Your task to perform on an android device: make emails show in primary in the gmail app Image 0: 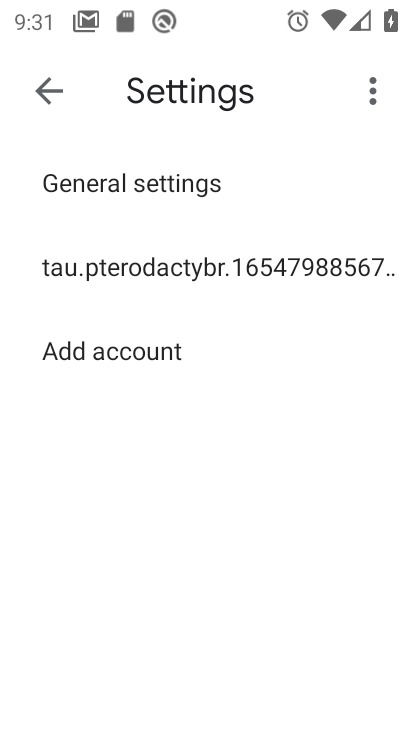
Step 0: press home button
Your task to perform on an android device: make emails show in primary in the gmail app Image 1: 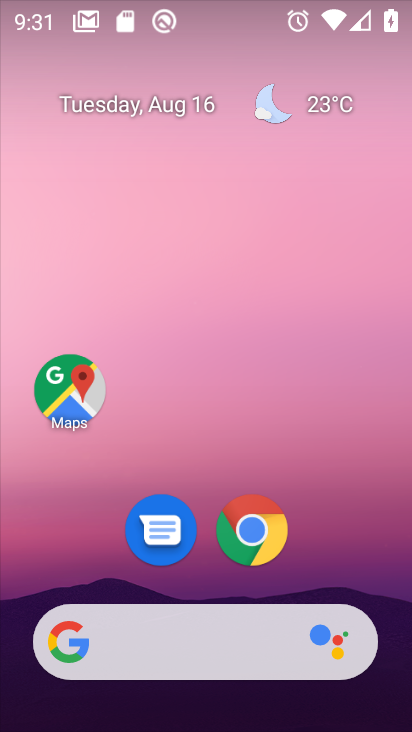
Step 1: drag from (336, 582) to (360, 213)
Your task to perform on an android device: make emails show in primary in the gmail app Image 2: 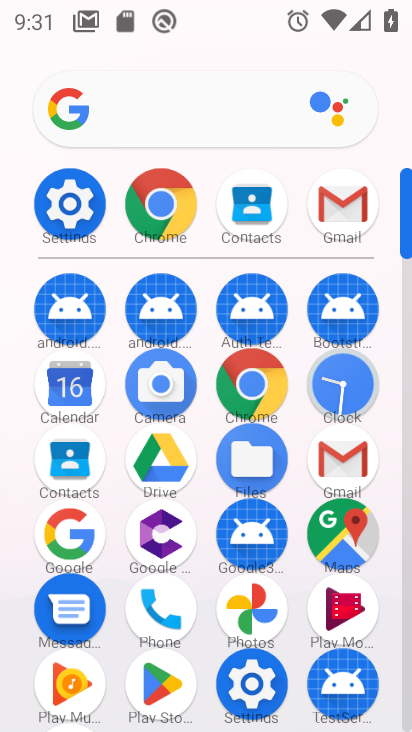
Step 2: click (341, 471)
Your task to perform on an android device: make emails show in primary in the gmail app Image 3: 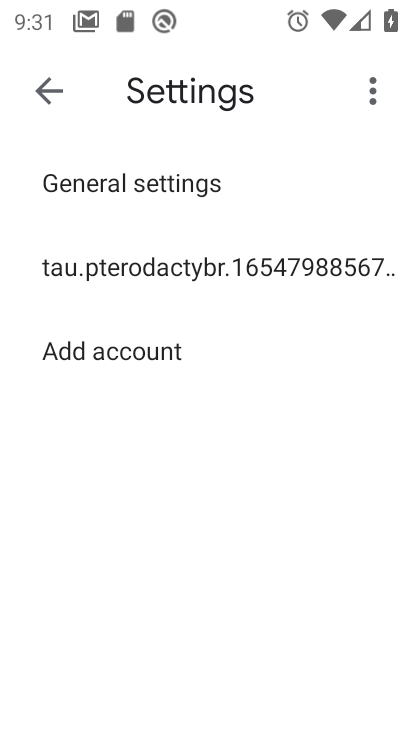
Step 3: click (283, 267)
Your task to perform on an android device: make emails show in primary in the gmail app Image 4: 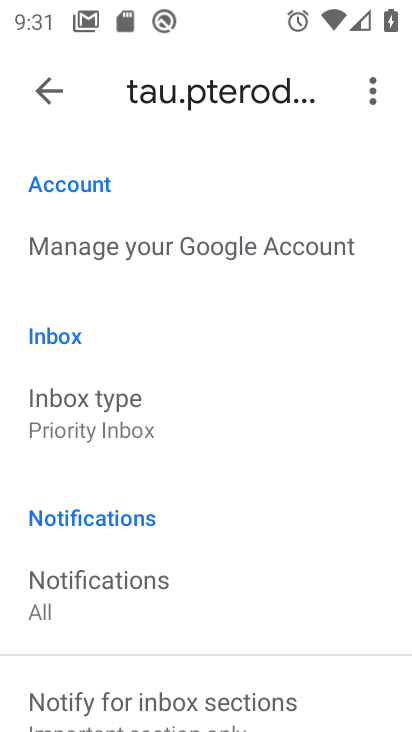
Step 4: drag from (192, 616) to (306, 243)
Your task to perform on an android device: make emails show in primary in the gmail app Image 5: 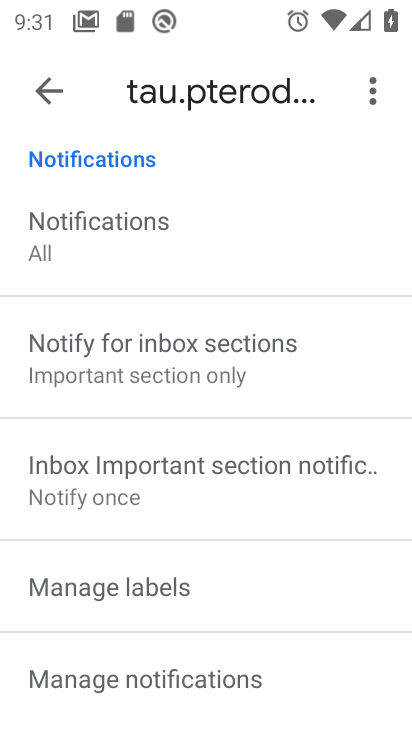
Step 5: drag from (269, 635) to (345, 403)
Your task to perform on an android device: make emails show in primary in the gmail app Image 6: 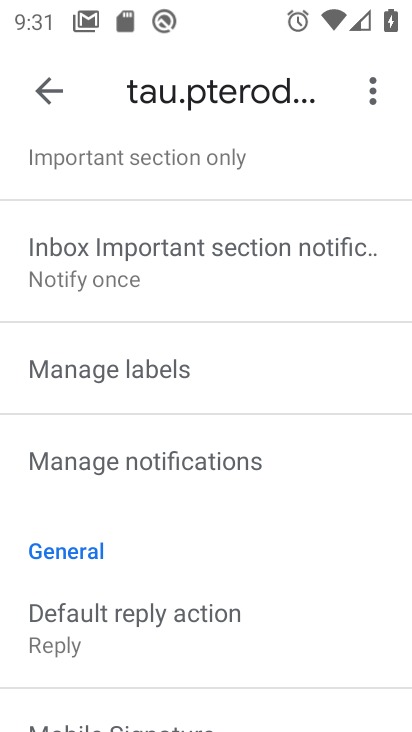
Step 6: drag from (280, 642) to (368, 255)
Your task to perform on an android device: make emails show in primary in the gmail app Image 7: 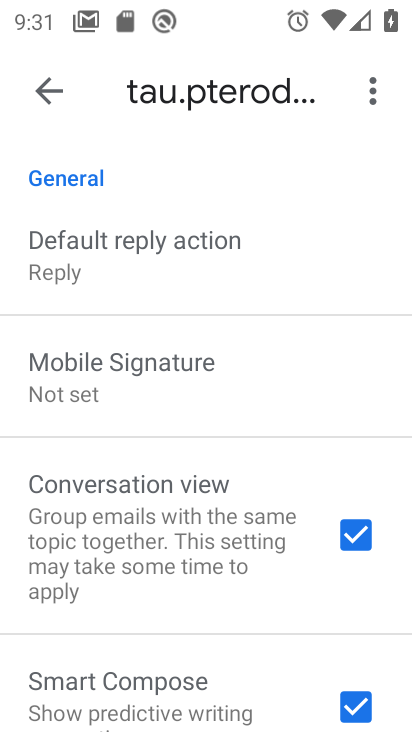
Step 7: drag from (136, 162) to (191, 654)
Your task to perform on an android device: make emails show in primary in the gmail app Image 8: 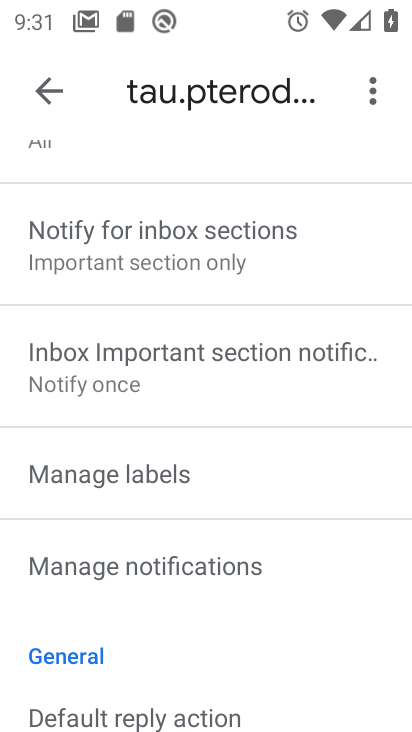
Step 8: drag from (210, 201) to (186, 644)
Your task to perform on an android device: make emails show in primary in the gmail app Image 9: 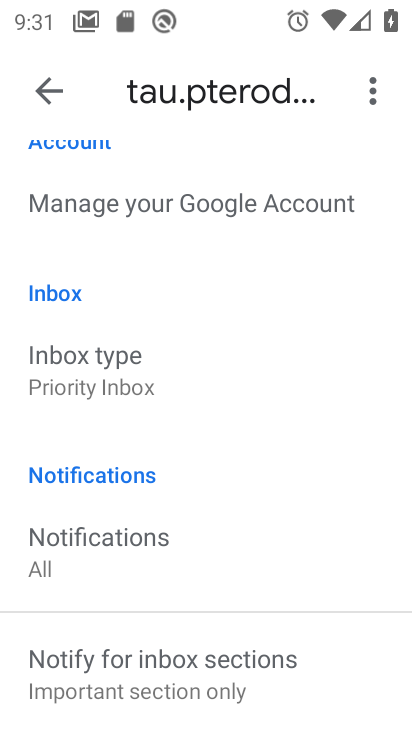
Step 9: drag from (201, 257) to (239, 617)
Your task to perform on an android device: make emails show in primary in the gmail app Image 10: 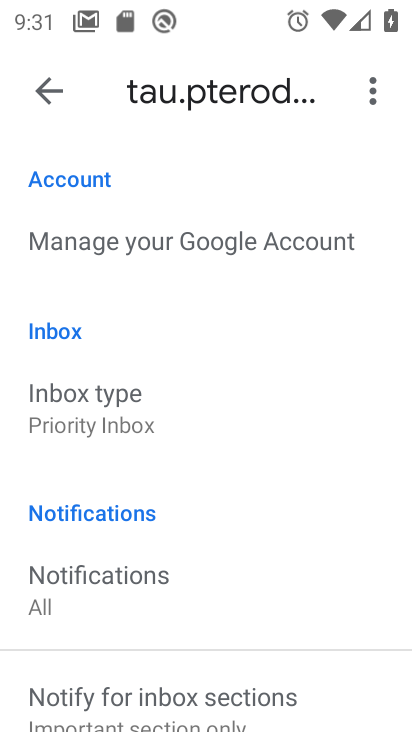
Step 10: drag from (213, 557) to (307, 240)
Your task to perform on an android device: make emails show in primary in the gmail app Image 11: 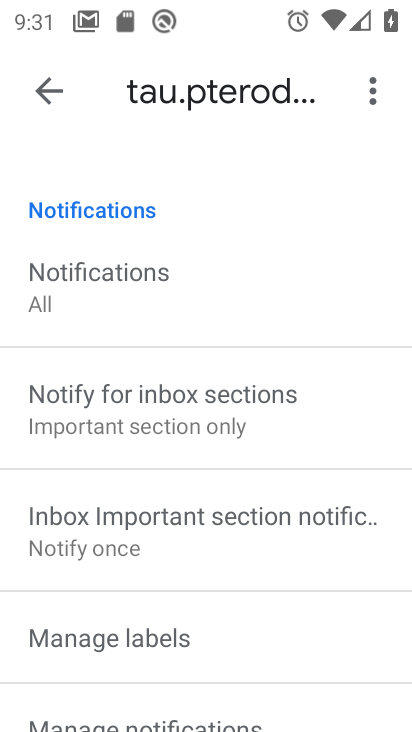
Step 11: drag from (312, 232) to (255, 673)
Your task to perform on an android device: make emails show in primary in the gmail app Image 12: 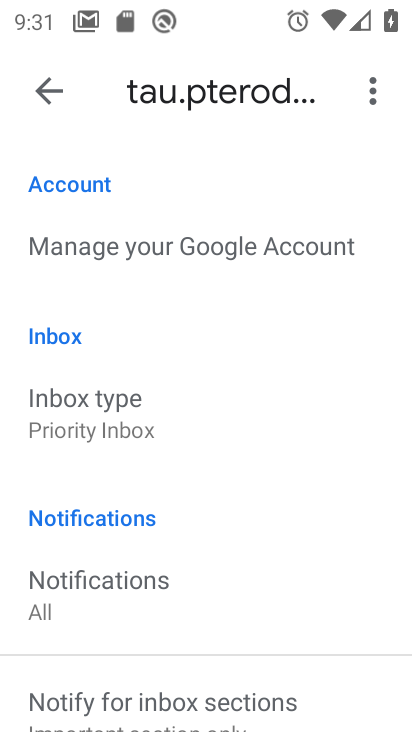
Step 12: click (62, 418)
Your task to perform on an android device: make emails show in primary in the gmail app Image 13: 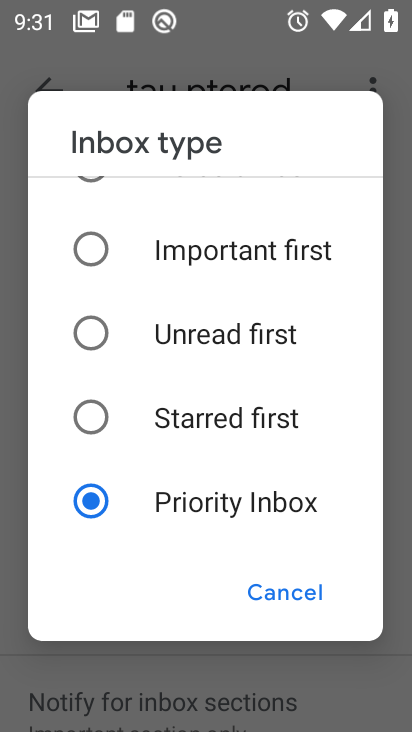
Step 13: drag from (235, 219) to (216, 468)
Your task to perform on an android device: make emails show in primary in the gmail app Image 14: 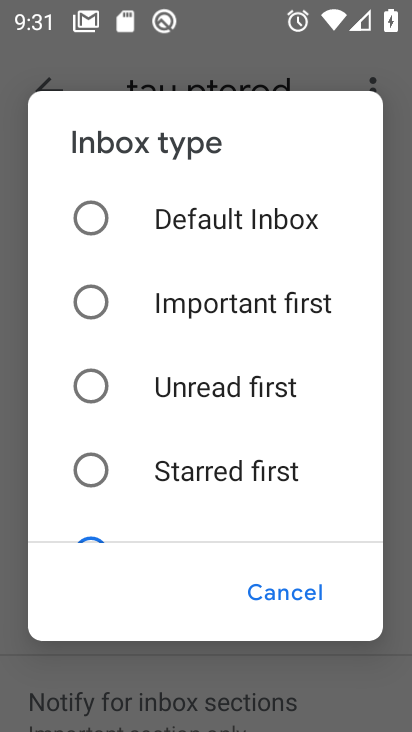
Step 14: click (202, 216)
Your task to perform on an android device: make emails show in primary in the gmail app Image 15: 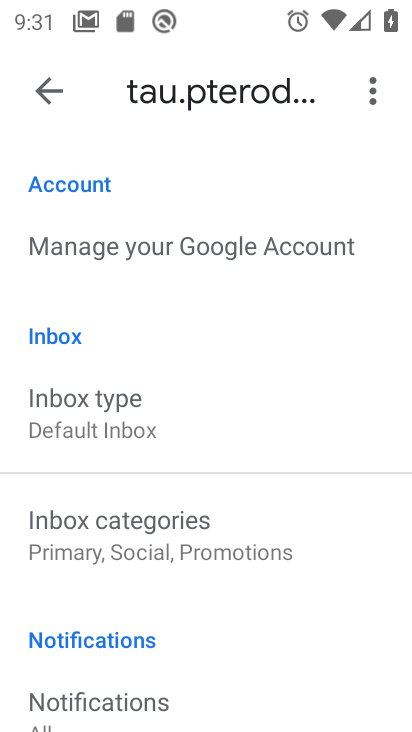
Step 15: click (172, 528)
Your task to perform on an android device: make emails show in primary in the gmail app Image 16: 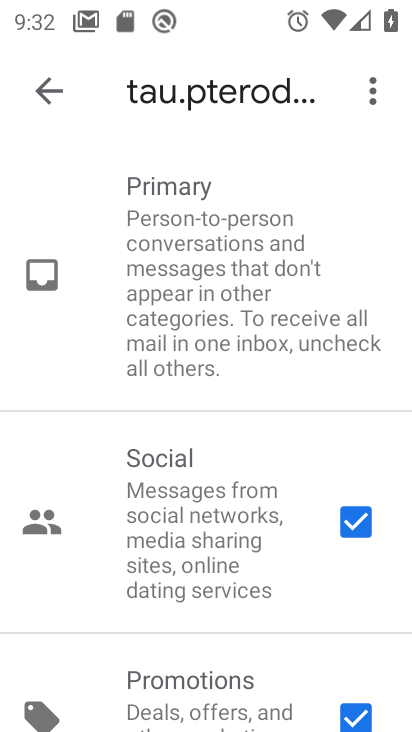
Step 16: task complete